Your task to perform on an android device: turn vacation reply on in the gmail app Image 0: 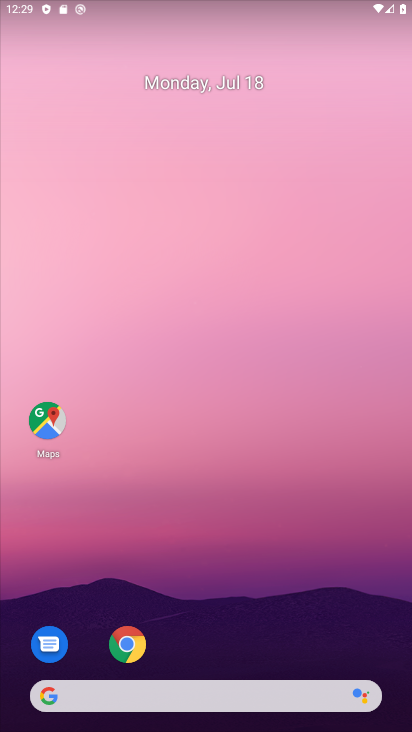
Step 0: press home button
Your task to perform on an android device: turn vacation reply on in the gmail app Image 1: 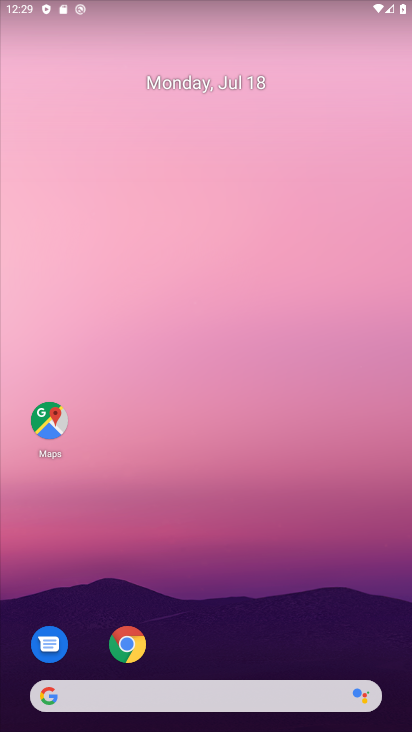
Step 1: drag from (221, 665) to (229, 0)
Your task to perform on an android device: turn vacation reply on in the gmail app Image 2: 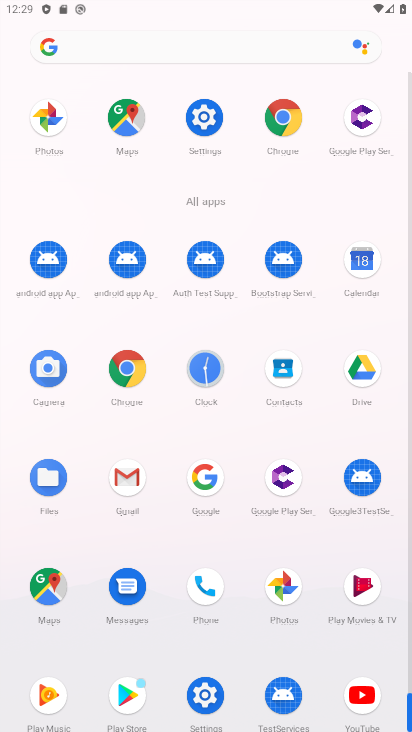
Step 2: click (123, 468)
Your task to perform on an android device: turn vacation reply on in the gmail app Image 3: 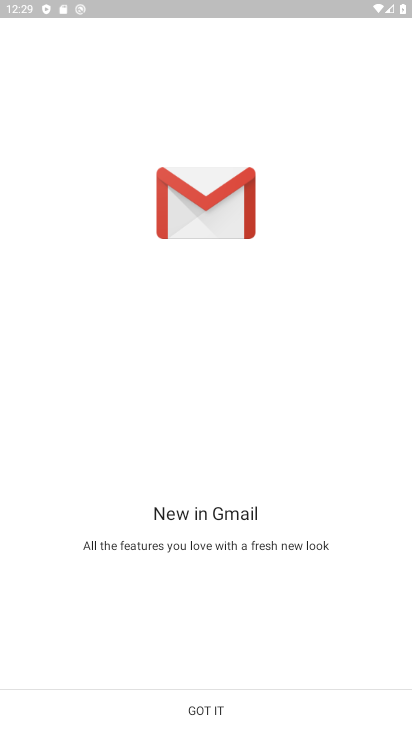
Step 3: click (209, 708)
Your task to perform on an android device: turn vacation reply on in the gmail app Image 4: 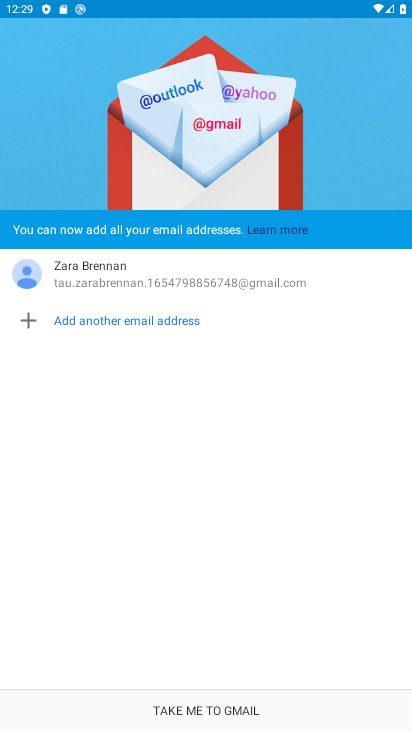
Step 4: click (204, 714)
Your task to perform on an android device: turn vacation reply on in the gmail app Image 5: 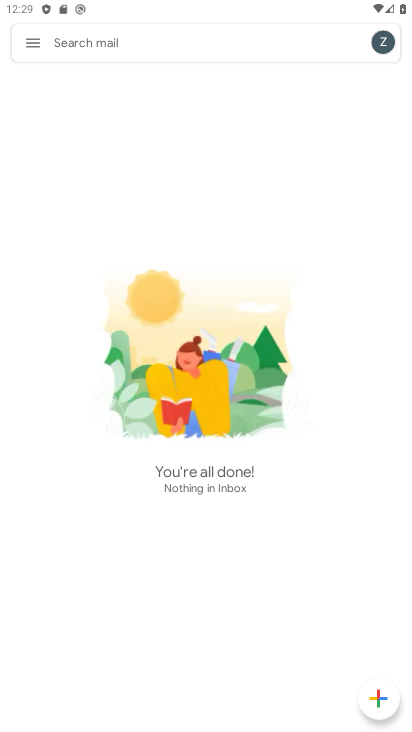
Step 5: click (33, 38)
Your task to perform on an android device: turn vacation reply on in the gmail app Image 6: 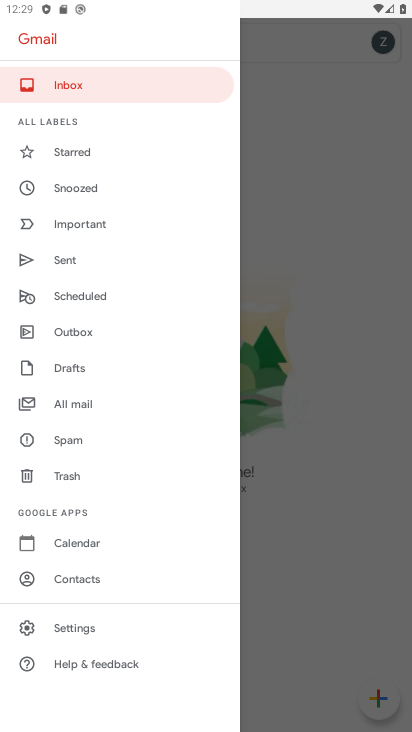
Step 6: click (107, 627)
Your task to perform on an android device: turn vacation reply on in the gmail app Image 7: 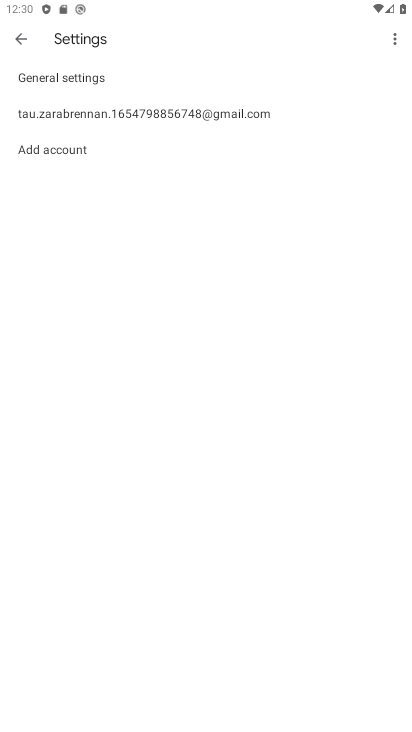
Step 7: click (109, 113)
Your task to perform on an android device: turn vacation reply on in the gmail app Image 8: 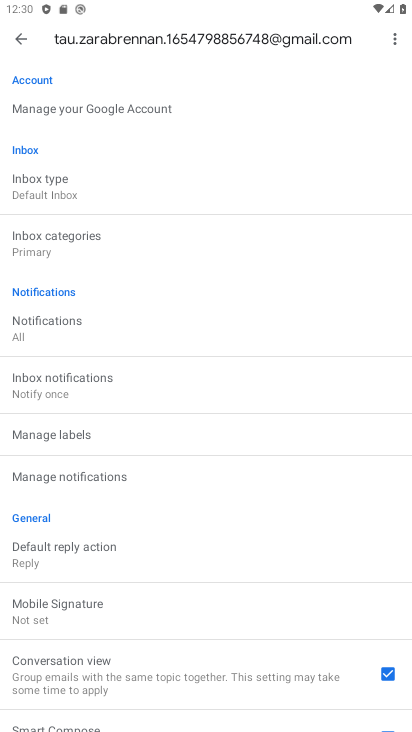
Step 8: drag from (163, 639) to (170, 87)
Your task to perform on an android device: turn vacation reply on in the gmail app Image 9: 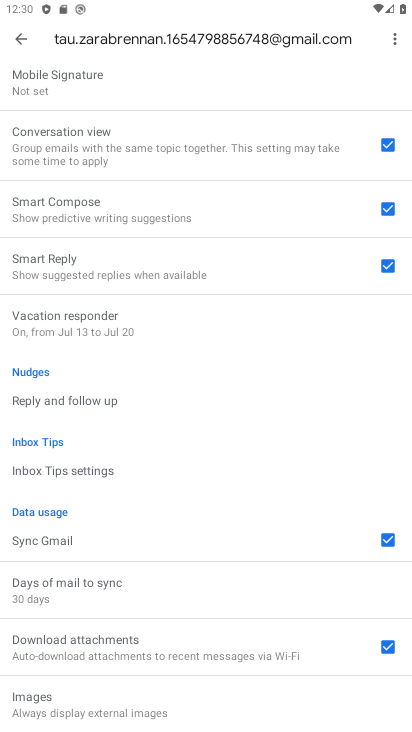
Step 9: click (154, 321)
Your task to perform on an android device: turn vacation reply on in the gmail app Image 10: 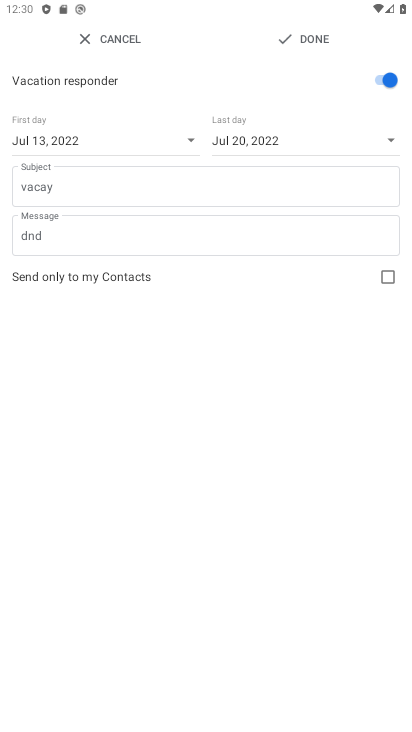
Step 10: task complete